Your task to perform on an android device: Open Youtube and go to the subscriptions tab Image 0: 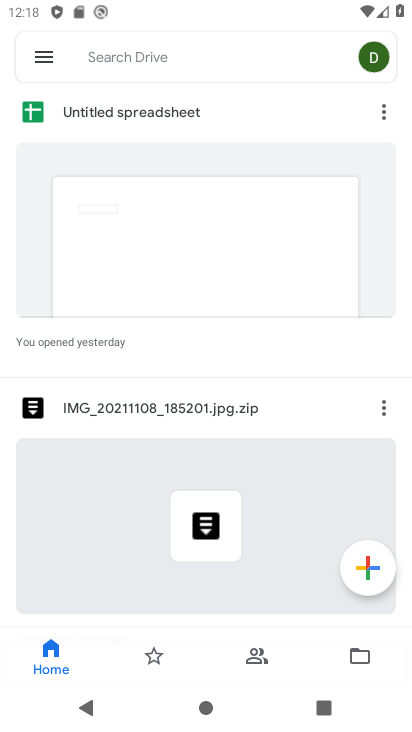
Step 0: press home button
Your task to perform on an android device: Open Youtube and go to the subscriptions tab Image 1: 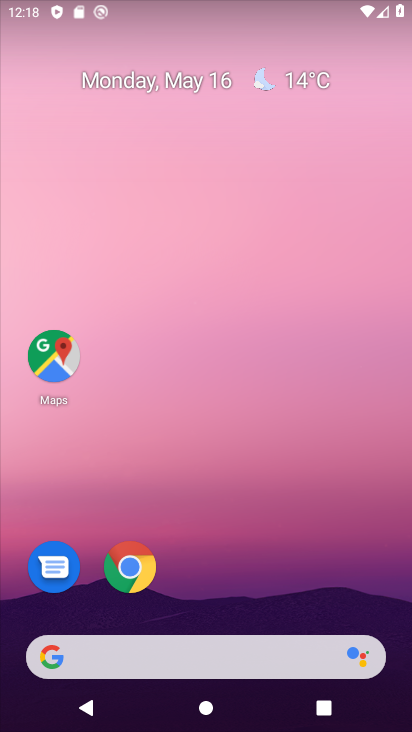
Step 1: drag from (235, 579) to (158, 174)
Your task to perform on an android device: Open Youtube and go to the subscriptions tab Image 2: 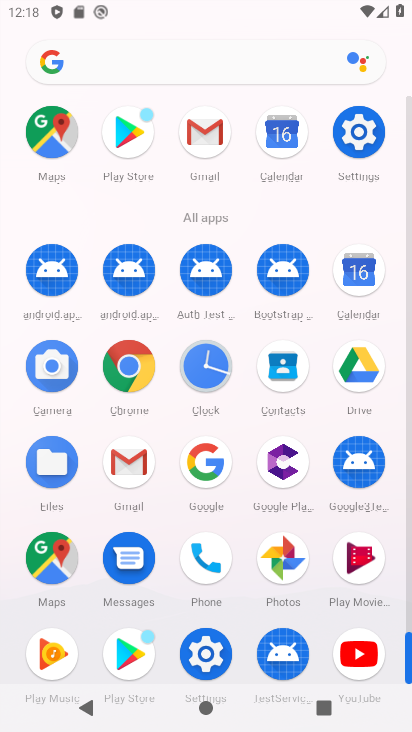
Step 2: click (358, 650)
Your task to perform on an android device: Open Youtube and go to the subscriptions tab Image 3: 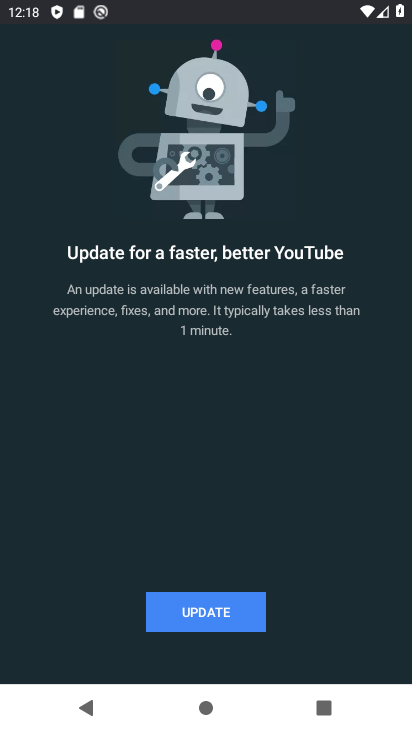
Step 3: click (200, 608)
Your task to perform on an android device: Open Youtube and go to the subscriptions tab Image 4: 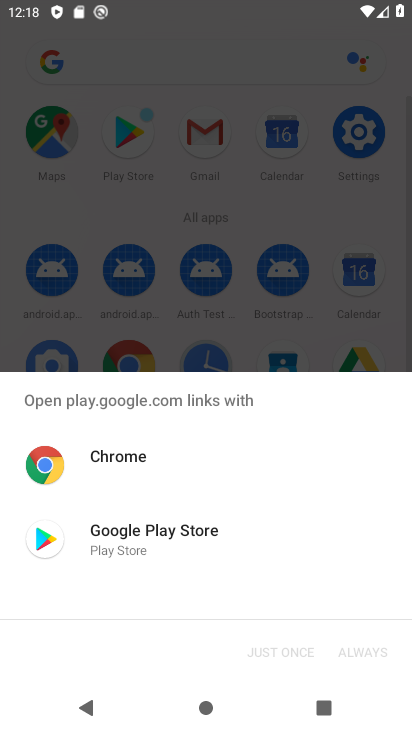
Step 4: click (125, 536)
Your task to perform on an android device: Open Youtube and go to the subscriptions tab Image 5: 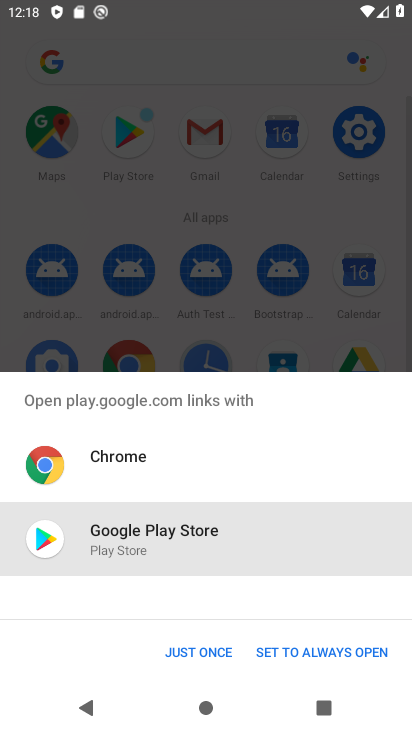
Step 5: click (206, 647)
Your task to perform on an android device: Open Youtube and go to the subscriptions tab Image 6: 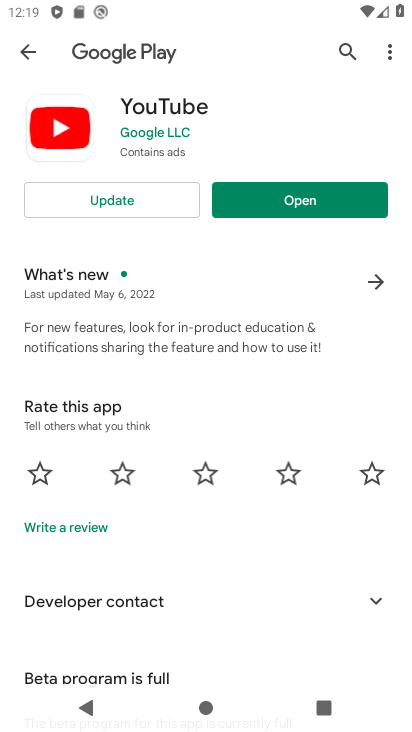
Step 6: click (107, 207)
Your task to perform on an android device: Open Youtube and go to the subscriptions tab Image 7: 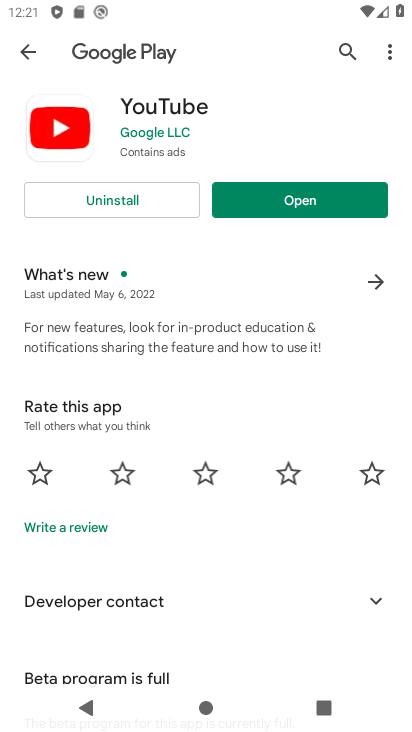
Step 7: click (306, 206)
Your task to perform on an android device: Open Youtube and go to the subscriptions tab Image 8: 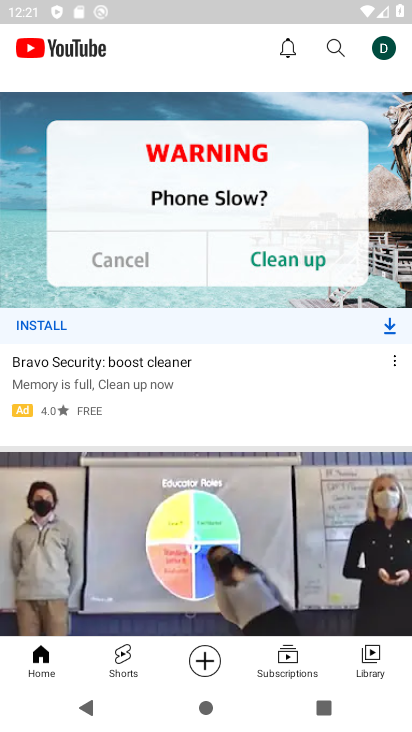
Step 8: click (289, 659)
Your task to perform on an android device: Open Youtube and go to the subscriptions tab Image 9: 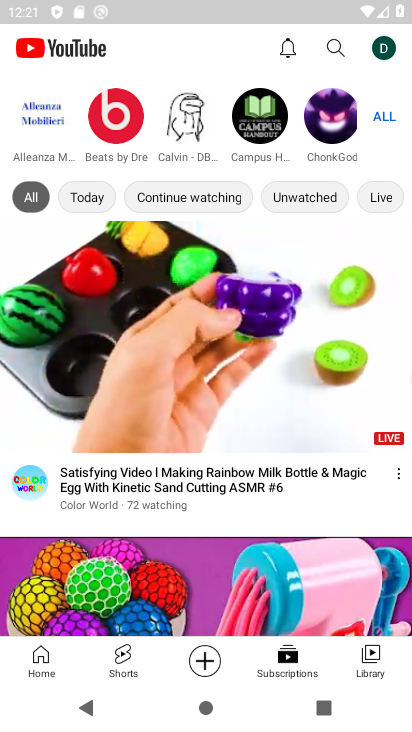
Step 9: task complete